Your task to perform on an android device: Open Google Image 0: 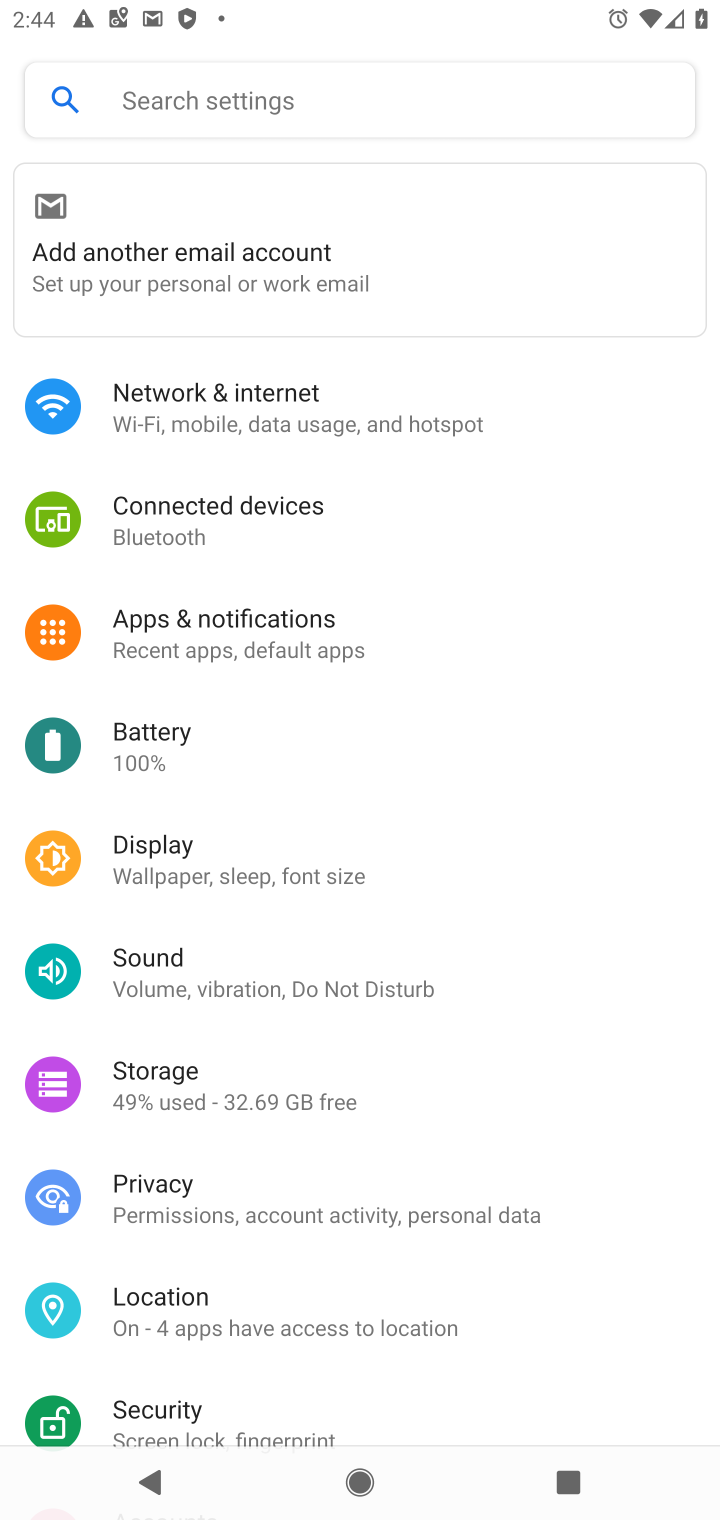
Step 0: press back button
Your task to perform on an android device: Open Google Image 1: 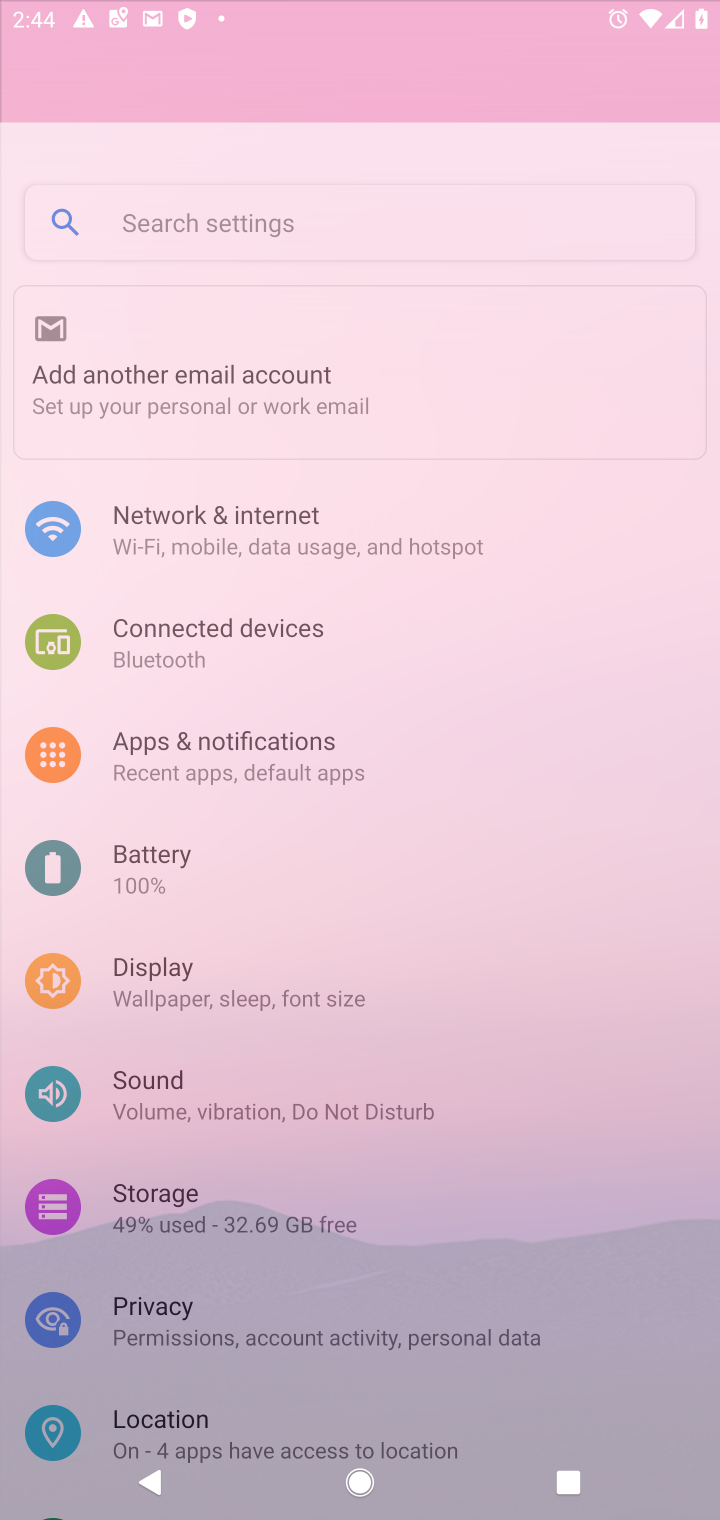
Step 1: press home button
Your task to perform on an android device: Open Google Image 2: 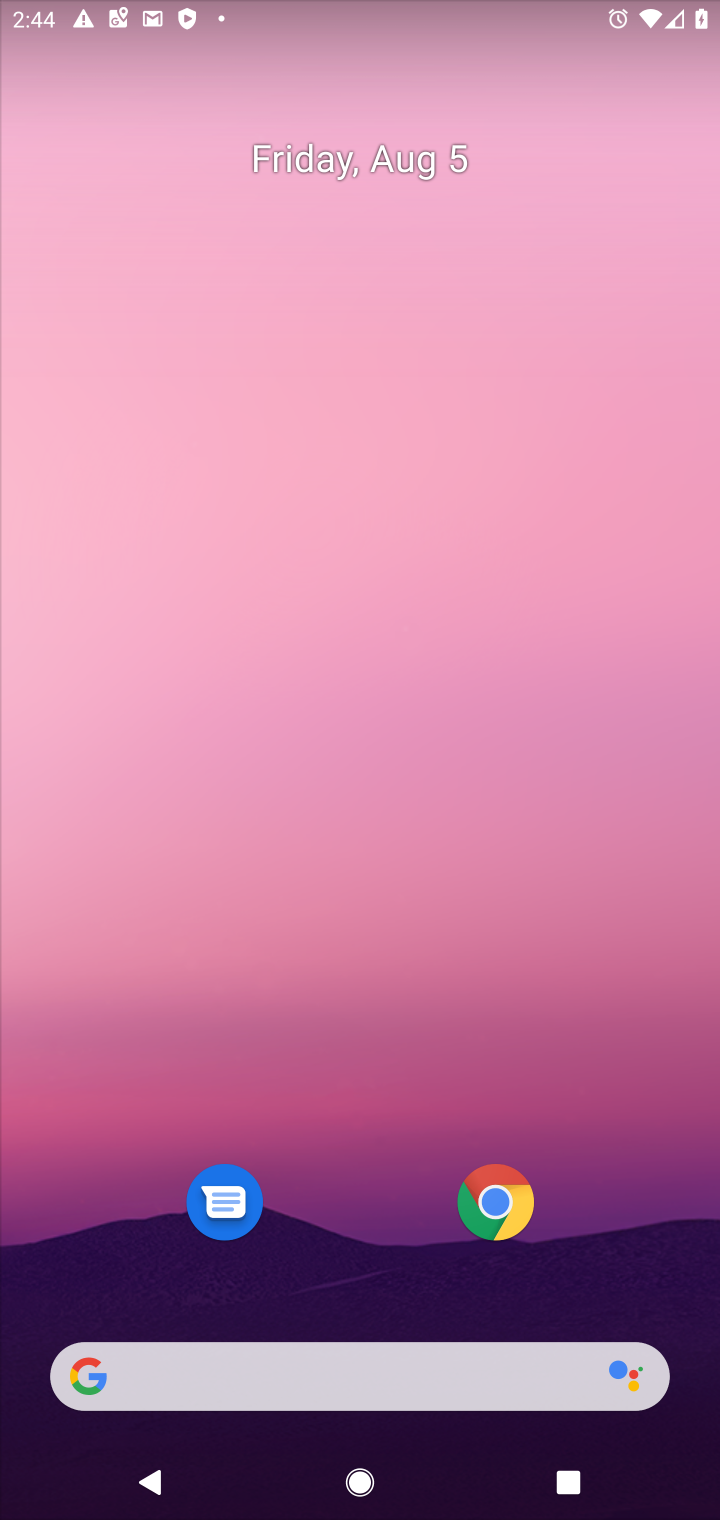
Step 2: drag from (331, 1256) to (261, 48)
Your task to perform on an android device: Open Google Image 3: 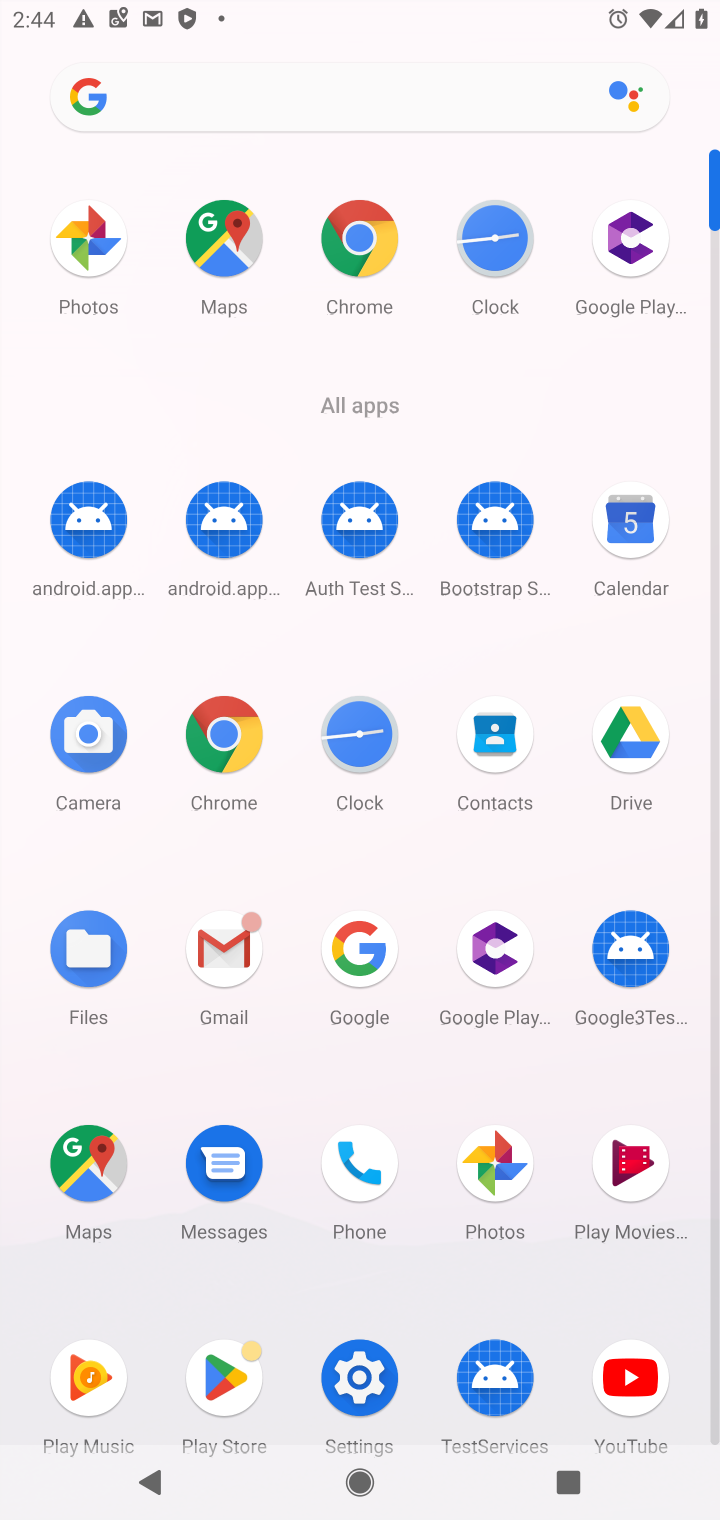
Step 3: click (368, 937)
Your task to perform on an android device: Open Google Image 4: 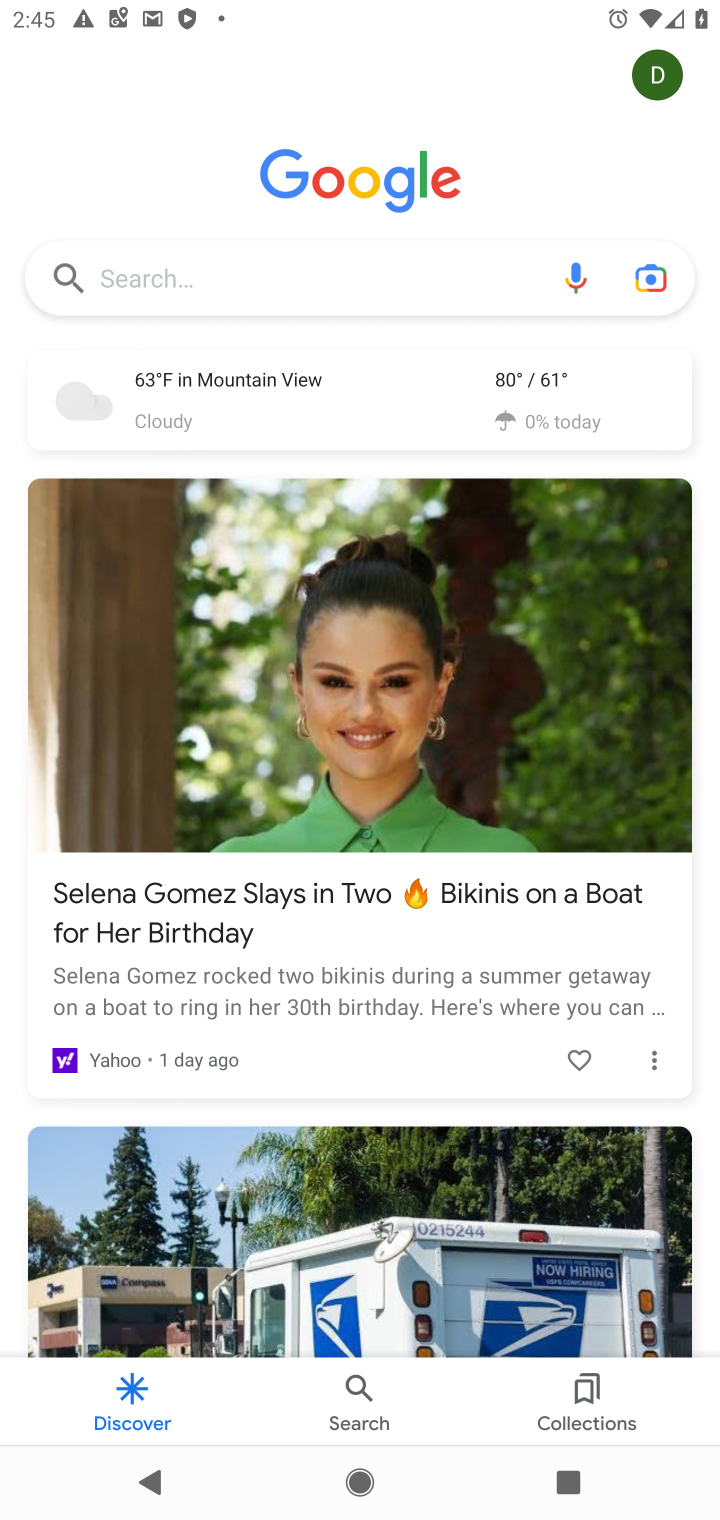
Step 4: task complete